Your task to perform on an android device: Open Google Image 0: 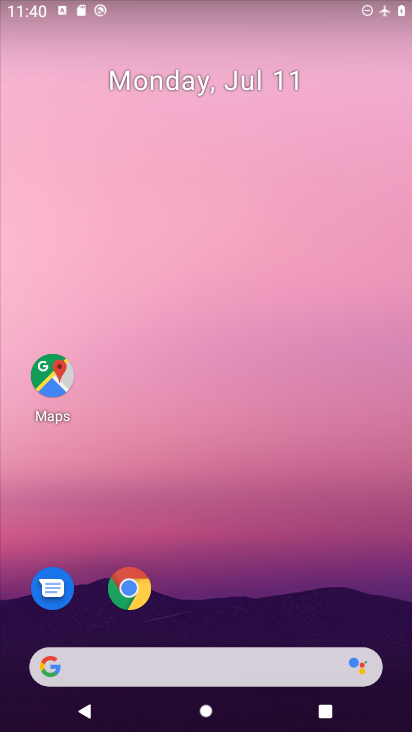
Step 0: drag from (388, 649) to (238, 65)
Your task to perform on an android device: Open Google Image 1: 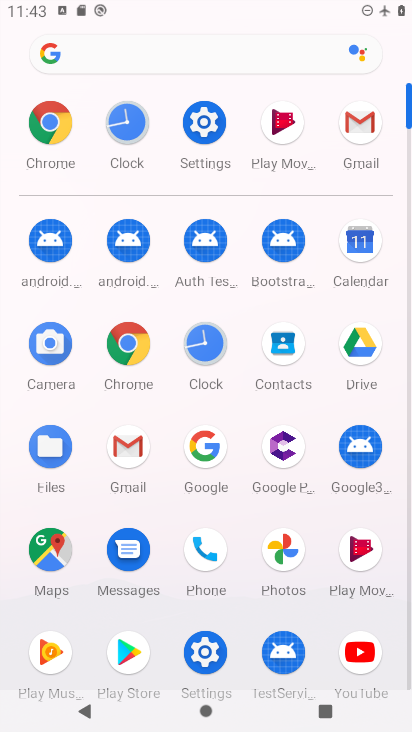
Step 1: click (212, 444)
Your task to perform on an android device: Open Google Image 2: 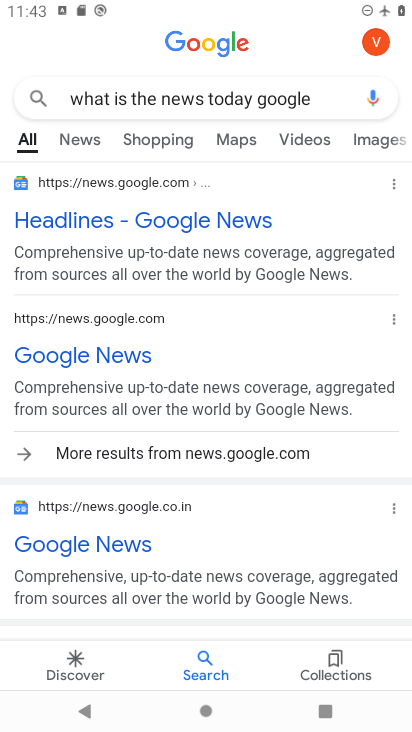
Step 2: task complete